Your task to perform on an android device: Show me productivity apps on the Play Store Image 0: 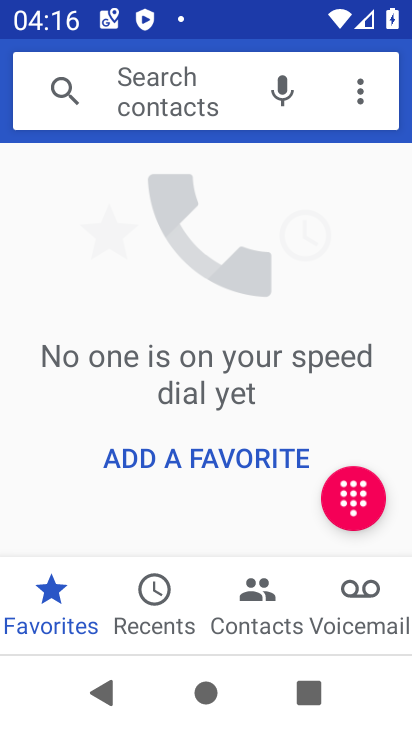
Step 0: press home button
Your task to perform on an android device: Show me productivity apps on the Play Store Image 1: 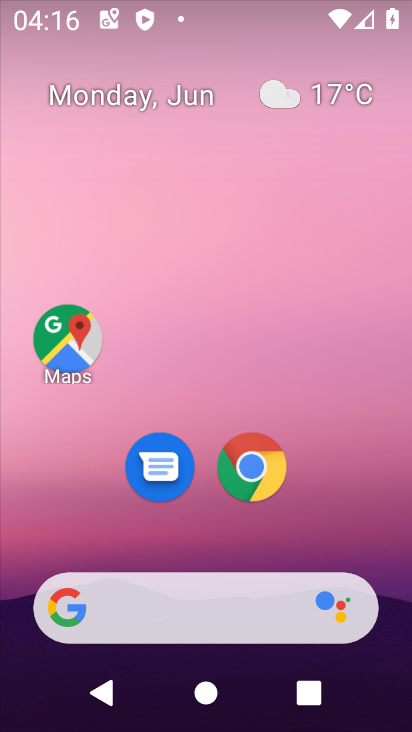
Step 1: drag from (200, 543) to (221, 34)
Your task to perform on an android device: Show me productivity apps on the Play Store Image 2: 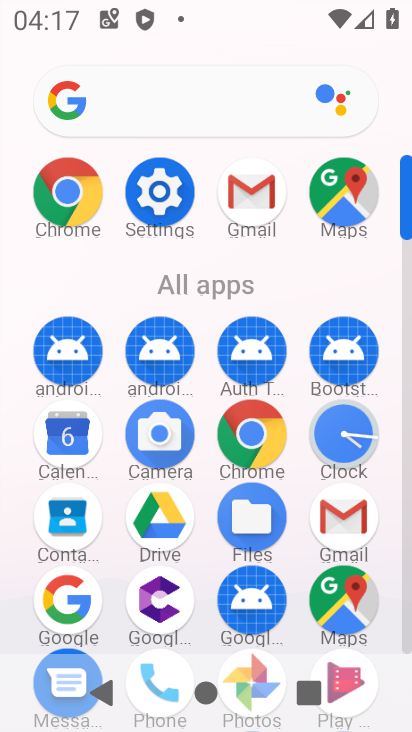
Step 2: drag from (99, 532) to (139, 215)
Your task to perform on an android device: Show me productivity apps on the Play Store Image 3: 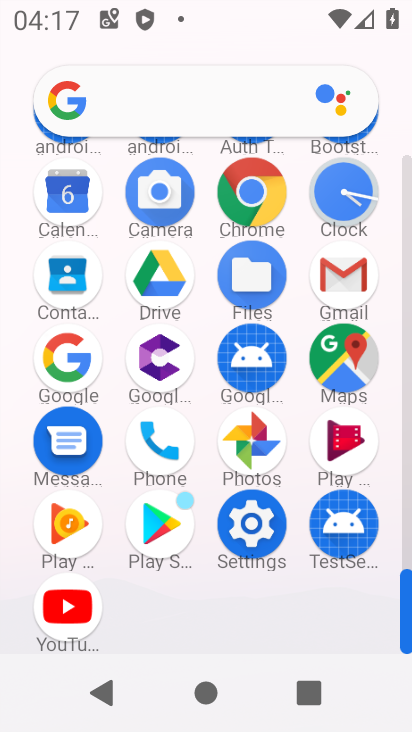
Step 3: click (155, 534)
Your task to perform on an android device: Show me productivity apps on the Play Store Image 4: 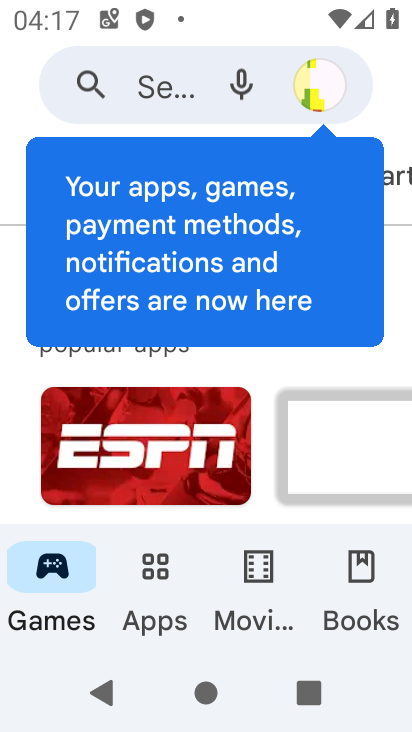
Step 4: click (165, 584)
Your task to perform on an android device: Show me productivity apps on the Play Store Image 5: 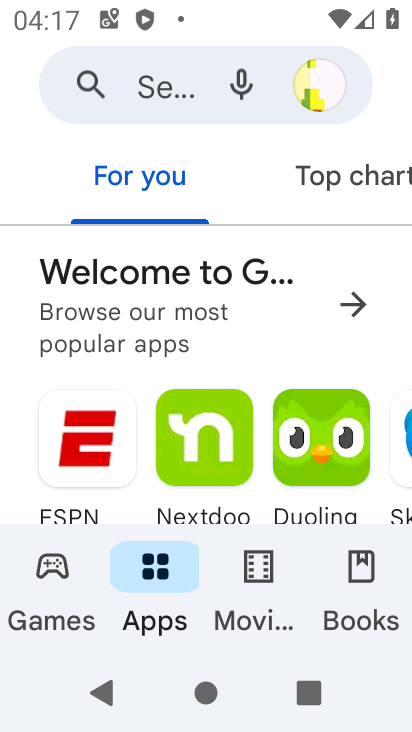
Step 5: drag from (368, 192) to (11, 174)
Your task to perform on an android device: Show me productivity apps on the Play Store Image 6: 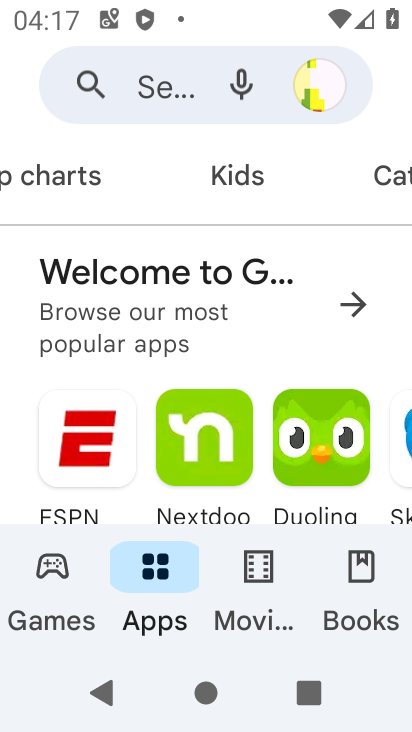
Step 6: drag from (344, 183) to (13, 163)
Your task to perform on an android device: Show me productivity apps on the Play Store Image 7: 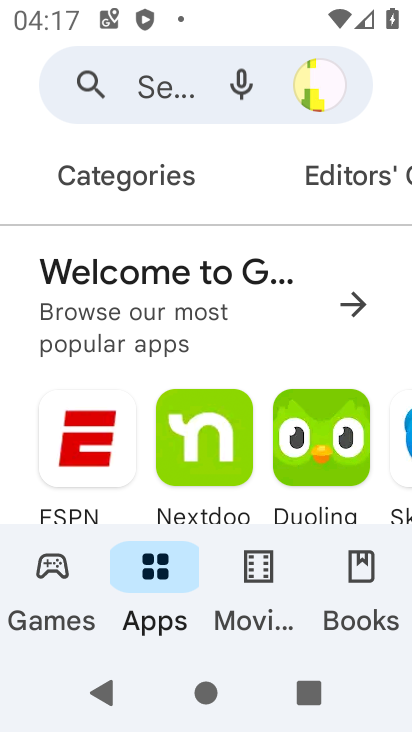
Step 7: click (141, 189)
Your task to perform on an android device: Show me productivity apps on the Play Store Image 8: 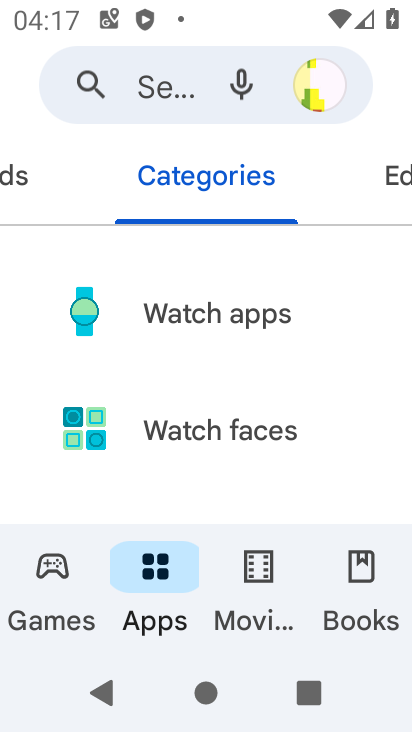
Step 8: drag from (198, 451) to (287, 51)
Your task to perform on an android device: Show me productivity apps on the Play Store Image 9: 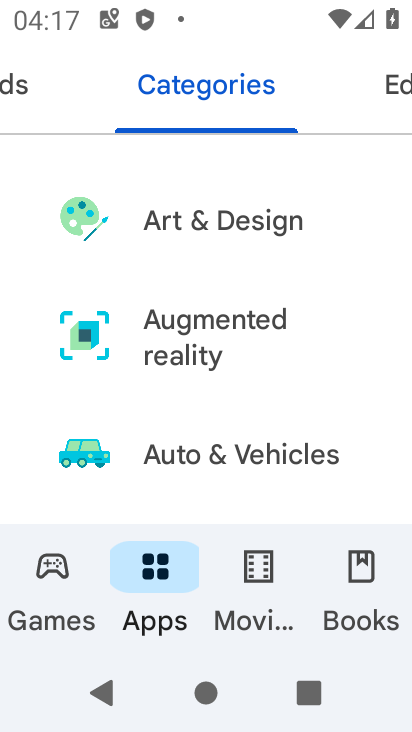
Step 9: drag from (254, 423) to (330, 57)
Your task to perform on an android device: Show me productivity apps on the Play Store Image 10: 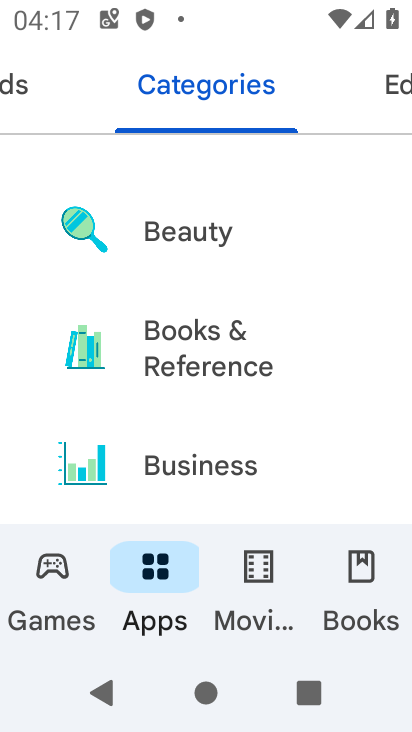
Step 10: drag from (268, 472) to (321, 3)
Your task to perform on an android device: Show me productivity apps on the Play Store Image 11: 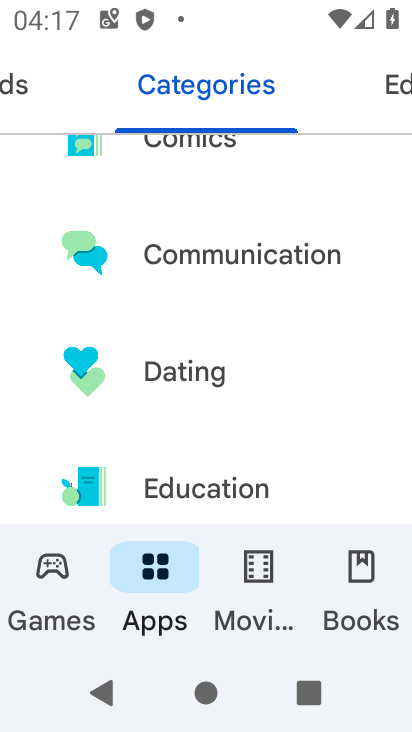
Step 11: drag from (243, 498) to (349, 16)
Your task to perform on an android device: Show me productivity apps on the Play Store Image 12: 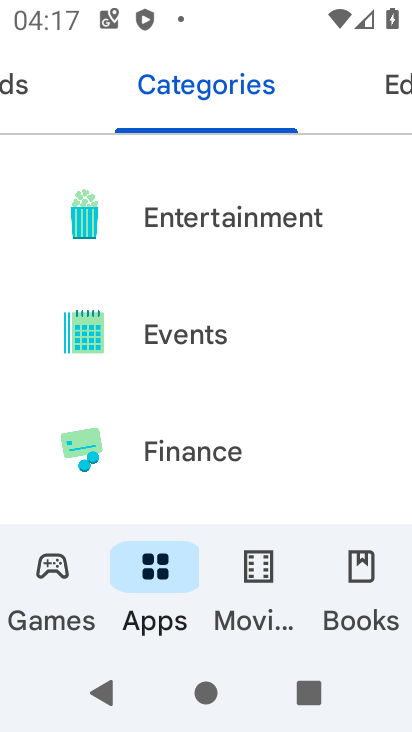
Step 12: drag from (295, 490) to (367, 101)
Your task to perform on an android device: Show me productivity apps on the Play Store Image 13: 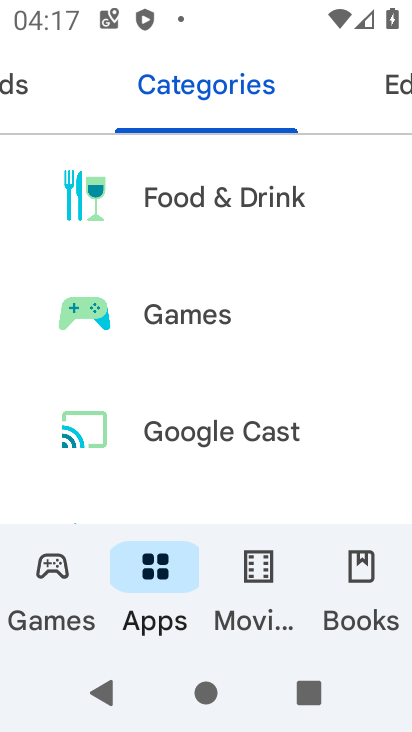
Step 13: drag from (226, 502) to (316, 11)
Your task to perform on an android device: Show me productivity apps on the Play Store Image 14: 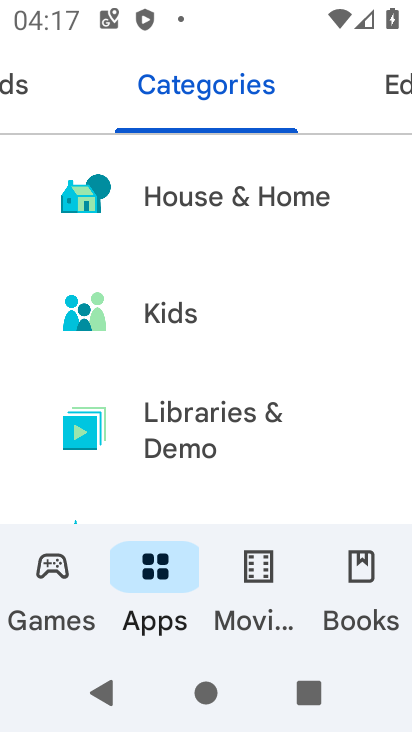
Step 14: drag from (227, 471) to (274, 152)
Your task to perform on an android device: Show me productivity apps on the Play Store Image 15: 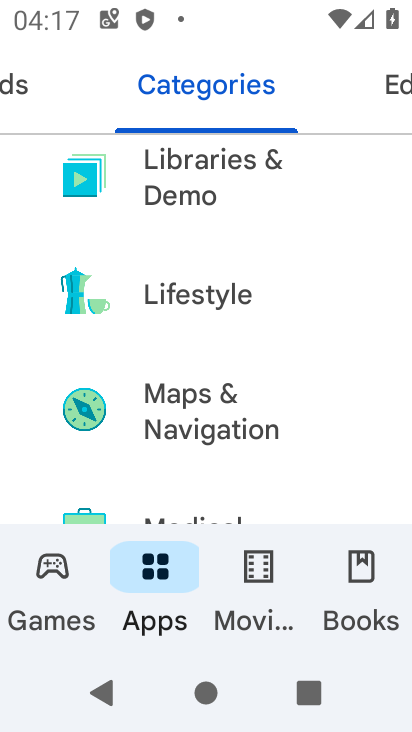
Step 15: drag from (212, 487) to (269, 72)
Your task to perform on an android device: Show me productivity apps on the Play Store Image 16: 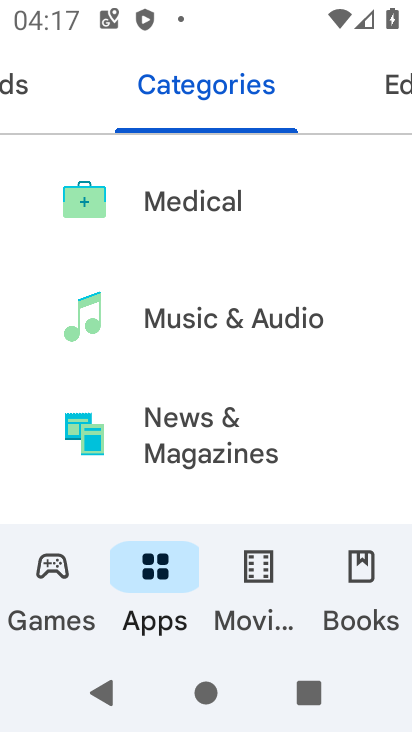
Step 16: drag from (214, 460) to (258, 110)
Your task to perform on an android device: Show me productivity apps on the Play Store Image 17: 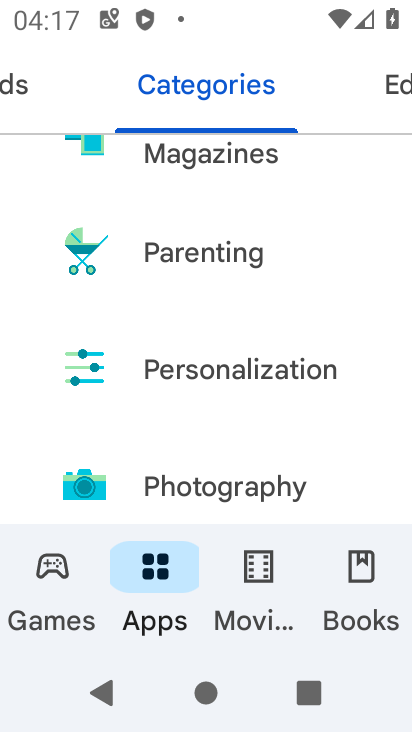
Step 17: drag from (237, 484) to (292, 117)
Your task to perform on an android device: Show me productivity apps on the Play Store Image 18: 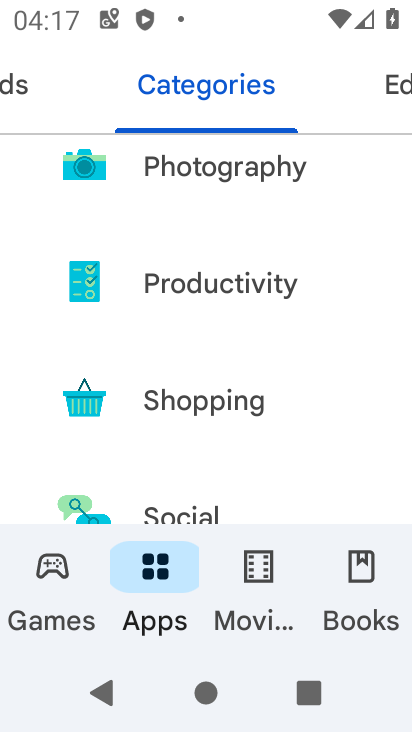
Step 18: click (240, 282)
Your task to perform on an android device: Show me productivity apps on the Play Store Image 19: 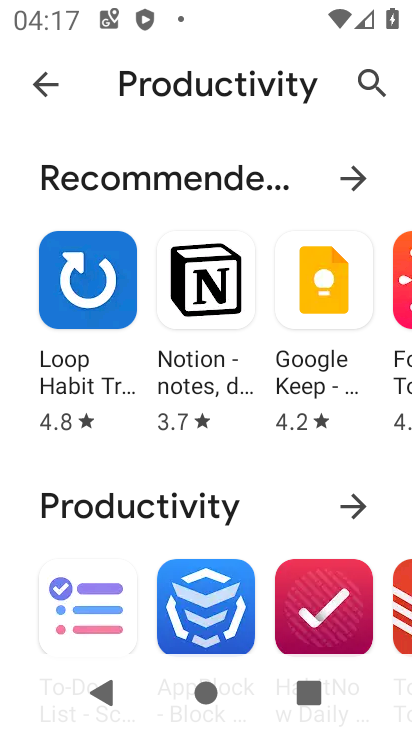
Step 19: task complete